Your task to perform on an android device: open chrome privacy settings Image 0: 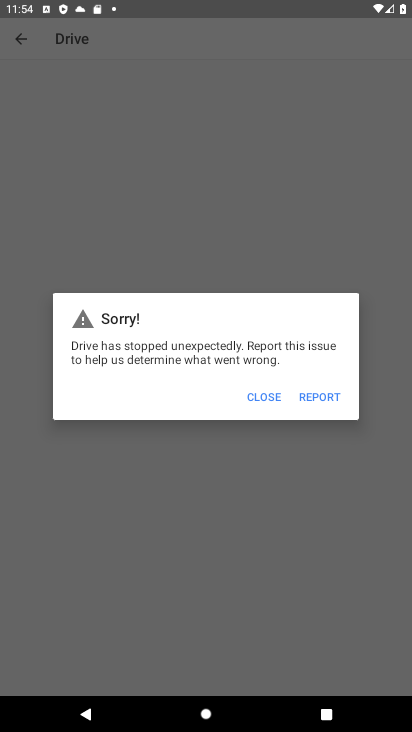
Step 0: task complete